Your task to perform on an android device: Open my contact list Image 0: 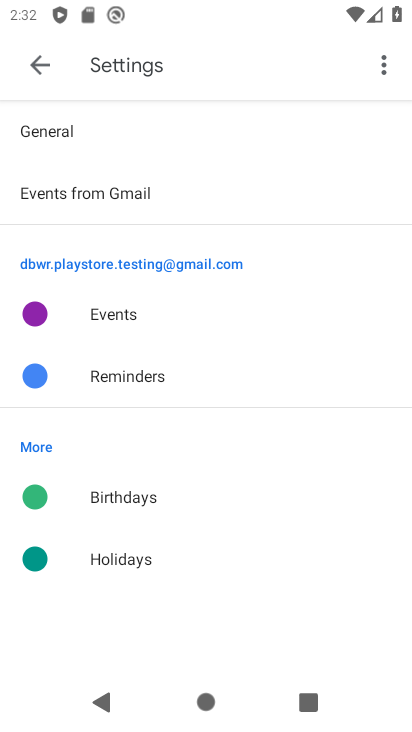
Step 0: press home button
Your task to perform on an android device: Open my contact list Image 1: 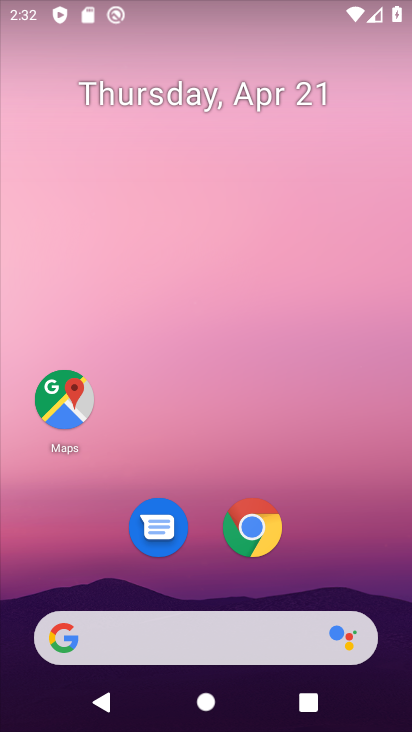
Step 1: drag from (221, 609) to (280, 274)
Your task to perform on an android device: Open my contact list Image 2: 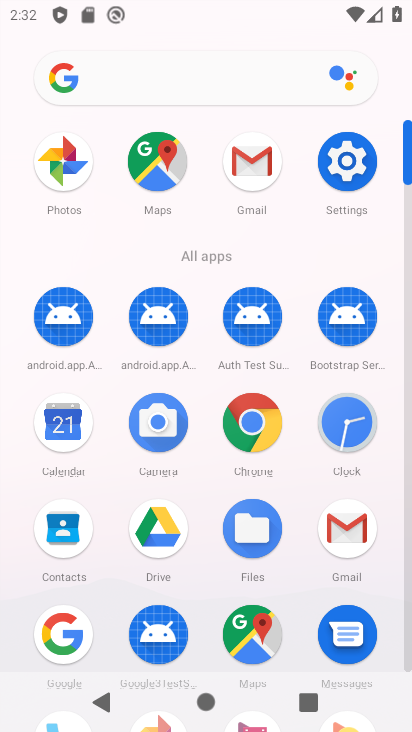
Step 2: click (66, 534)
Your task to perform on an android device: Open my contact list Image 3: 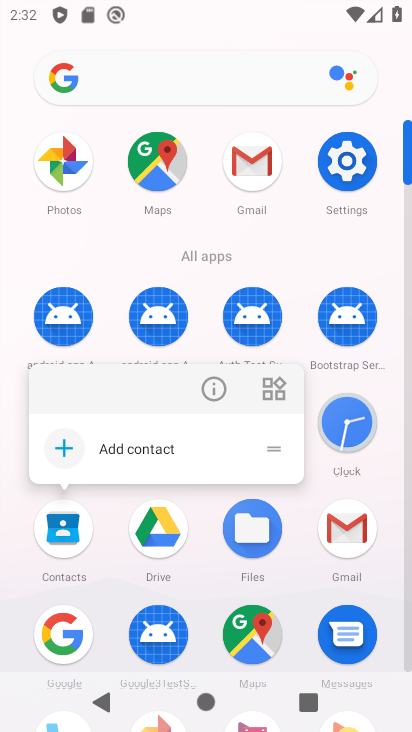
Step 3: click (66, 533)
Your task to perform on an android device: Open my contact list Image 4: 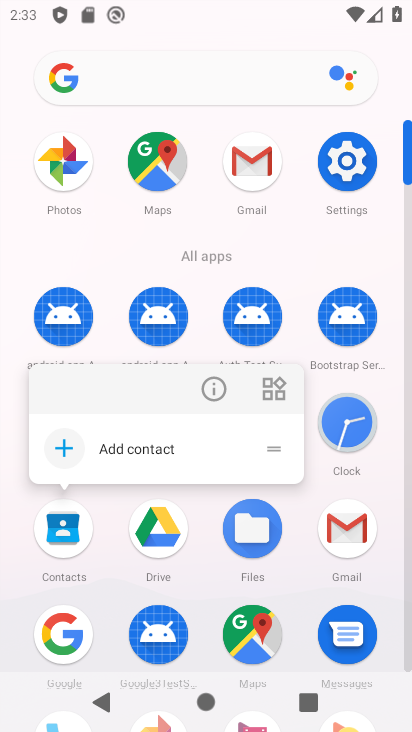
Step 4: click (66, 533)
Your task to perform on an android device: Open my contact list Image 5: 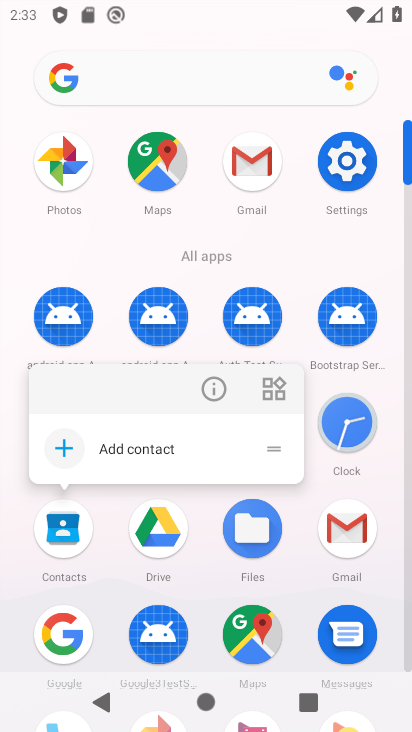
Step 5: click (66, 533)
Your task to perform on an android device: Open my contact list Image 6: 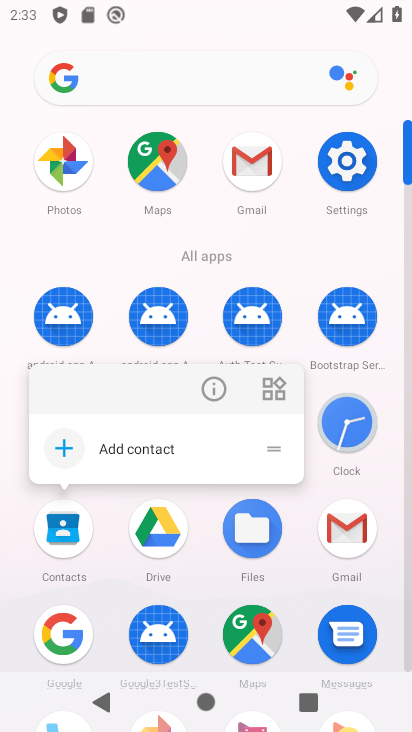
Step 6: click (66, 533)
Your task to perform on an android device: Open my contact list Image 7: 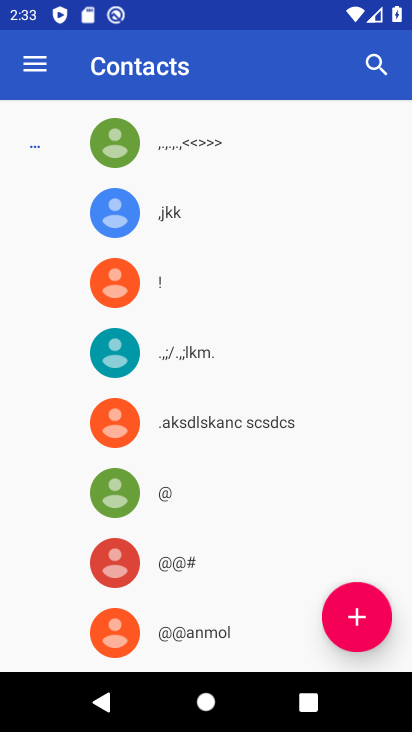
Step 7: task complete